Your task to perform on an android device: turn off location Image 0: 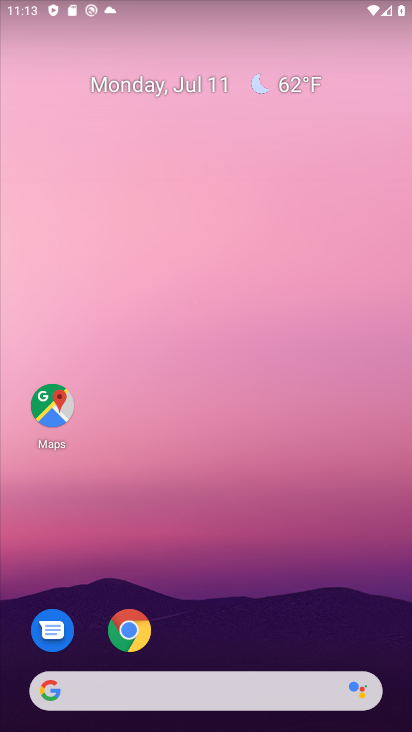
Step 0: drag from (315, 657) to (378, 6)
Your task to perform on an android device: turn off location Image 1: 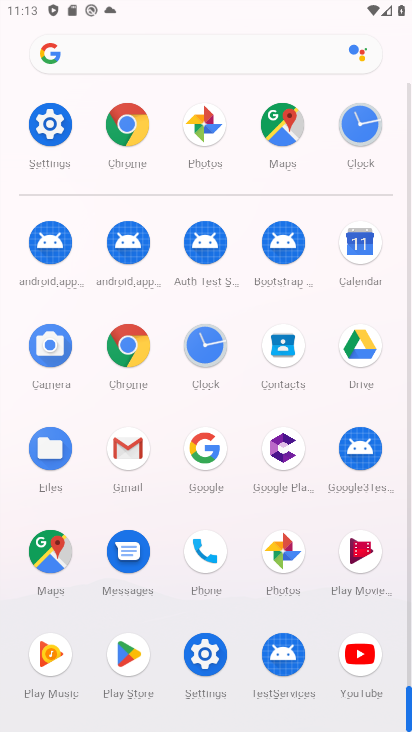
Step 1: click (51, 132)
Your task to perform on an android device: turn off location Image 2: 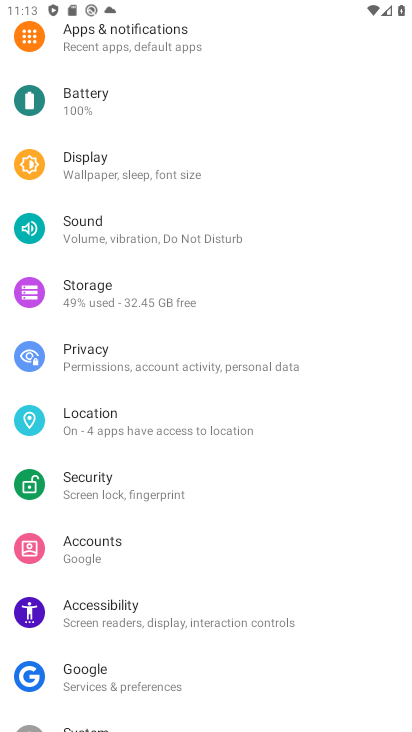
Step 2: click (149, 424)
Your task to perform on an android device: turn off location Image 3: 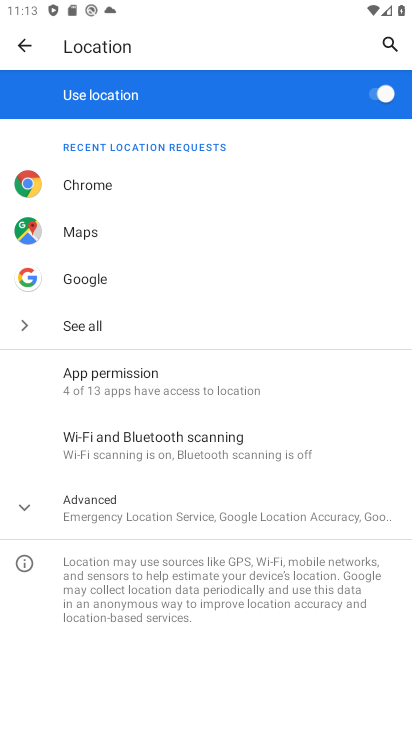
Step 3: click (378, 90)
Your task to perform on an android device: turn off location Image 4: 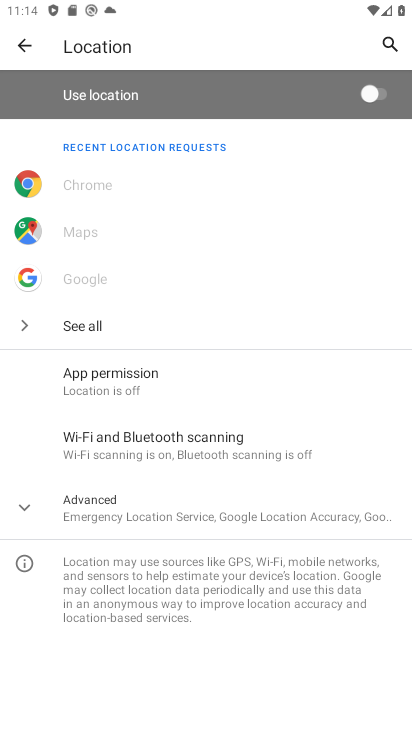
Step 4: task complete